Your task to perform on an android device: turn on showing notifications on the lock screen Image 0: 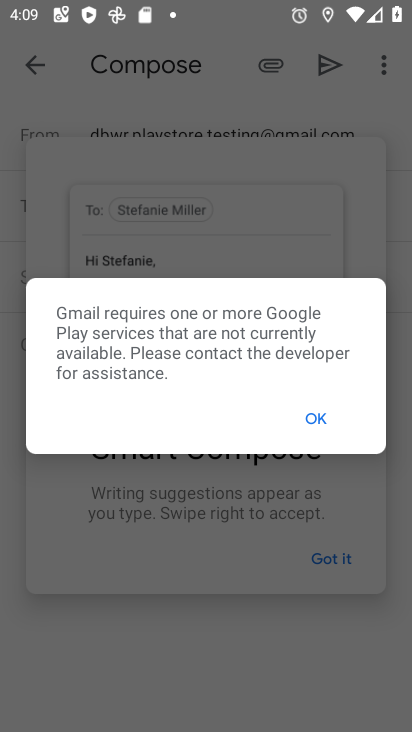
Step 0: press home button
Your task to perform on an android device: turn on showing notifications on the lock screen Image 1: 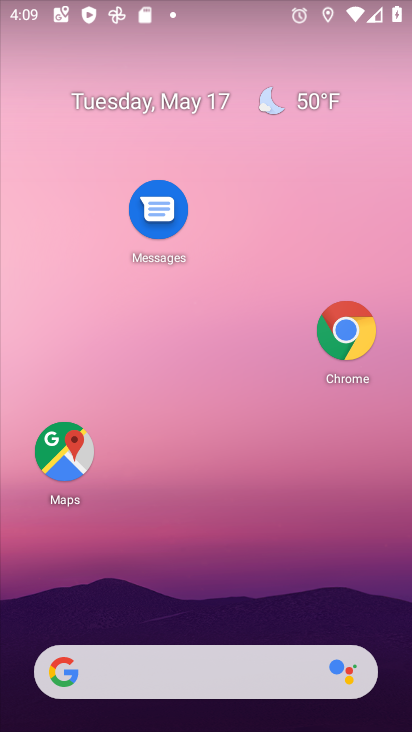
Step 1: drag from (178, 557) to (157, 122)
Your task to perform on an android device: turn on showing notifications on the lock screen Image 2: 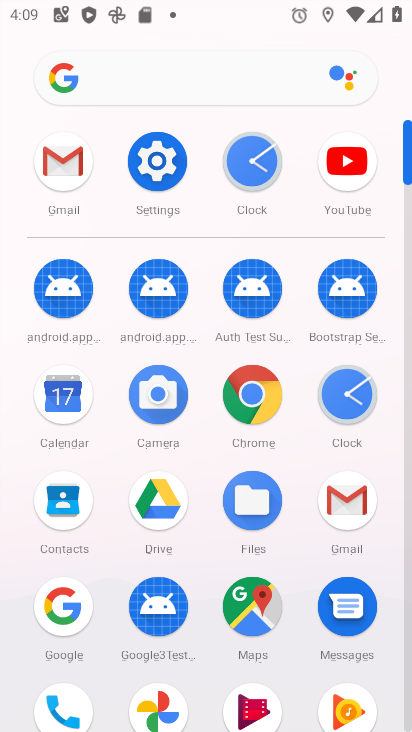
Step 2: click (157, 181)
Your task to perform on an android device: turn on showing notifications on the lock screen Image 3: 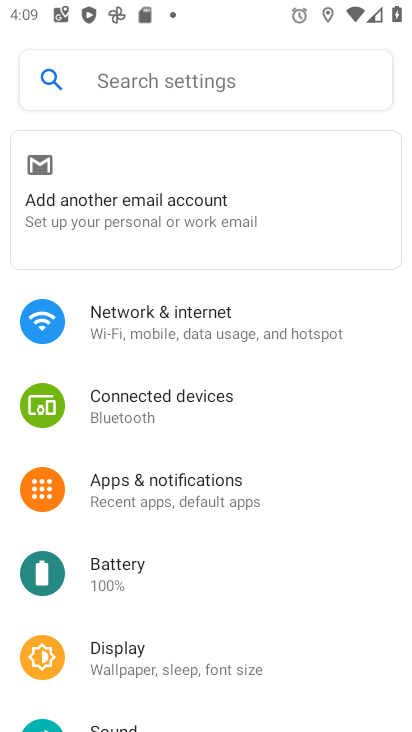
Step 3: click (187, 479)
Your task to perform on an android device: turn on showing notifications on the lock screen Image 4: 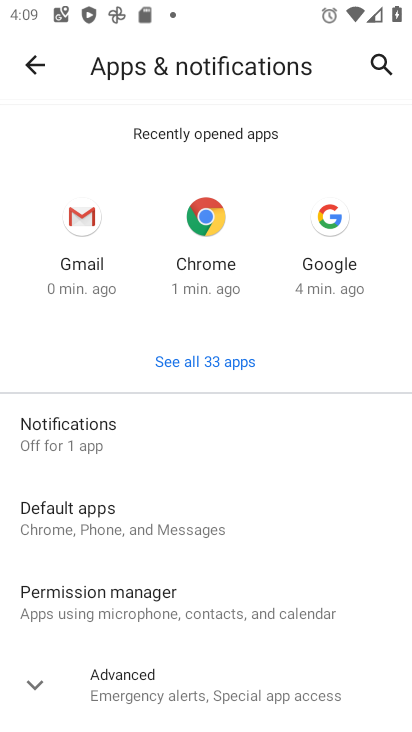
Step 4: drag from (227, 618) to (114, 146)
Your task to perform on an android device: turn on showing notifications on the lock screen Image 5: 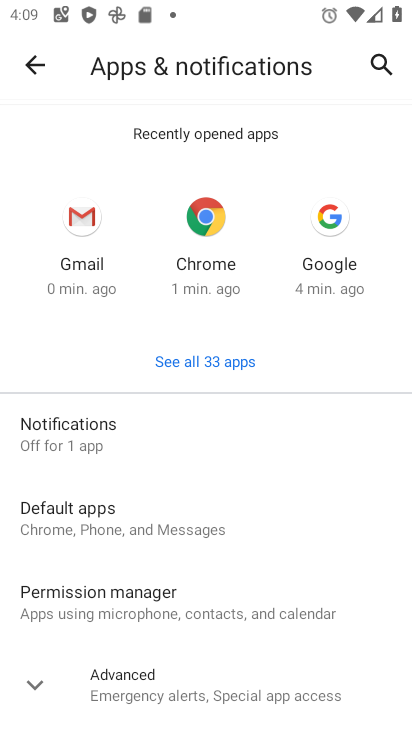
Step 5: drag from (203, 534) to (196, 454)
Your task to perform on an android device: turn on showing notifications on the lock screen Image 6: 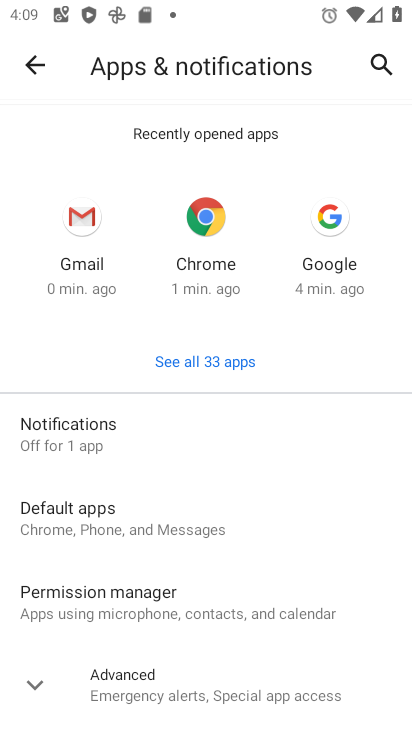
Step 6: click (69, 448)
Your task to perform on an android device: turn on showing notifications on the lock screen Image 7: 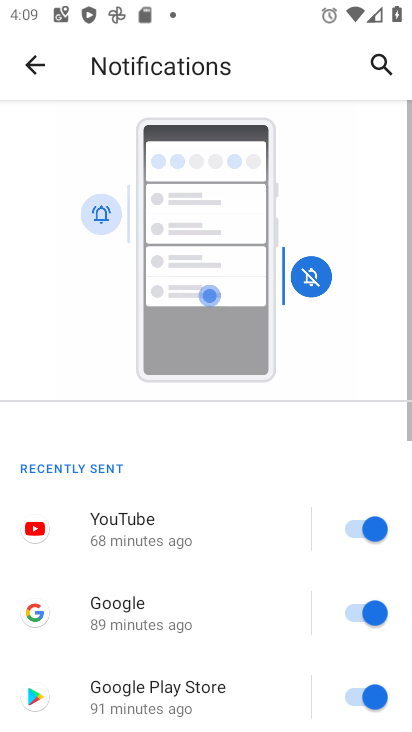
Step 7: drag from (171, 587) to (114, 100)
Your task to perform on an android device: turn on showing notifications on the lock screen Image 8: 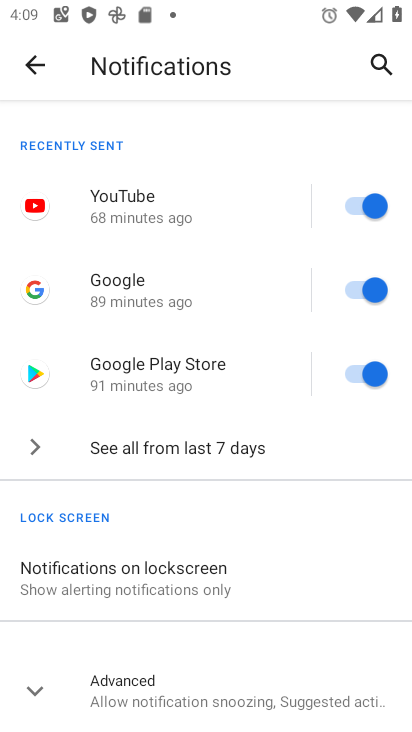
Step 8: drag from (178, 560) to (169, 395)
Your task to perform on an android device: turn on showing notifications on the lock screen Image 9: 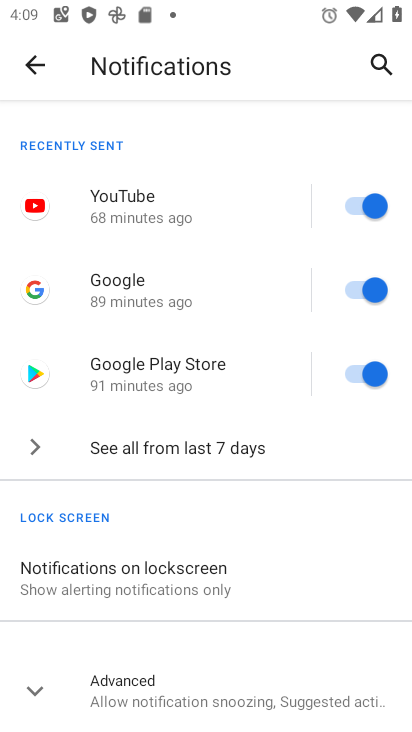
Step 9: click (137, 681)
Your task to perform on an android device: turn on showing notifications on the lock screen Image 10: 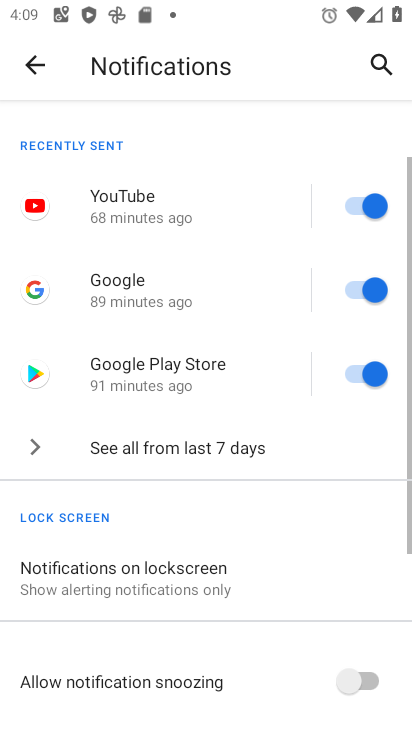
Step 10: drag from (168, 632) to (126, 236)
Your task to perform on an android device: turn on showing notifications on the lock screen Image 11: 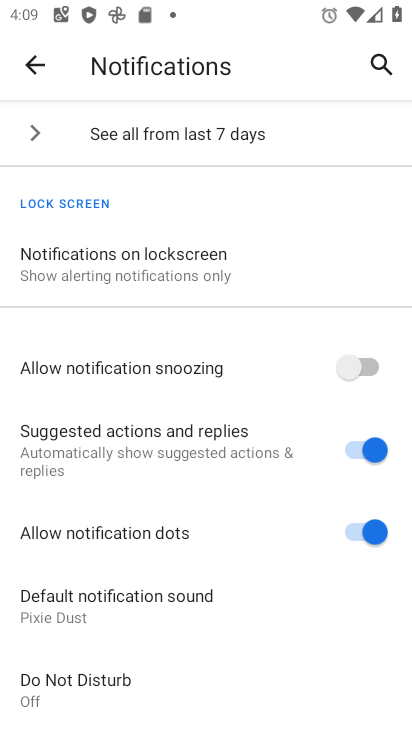
Step 11: click (170, 286)
Your task to perform on an android device: turn on showing notifications on the lock screen Image 12: 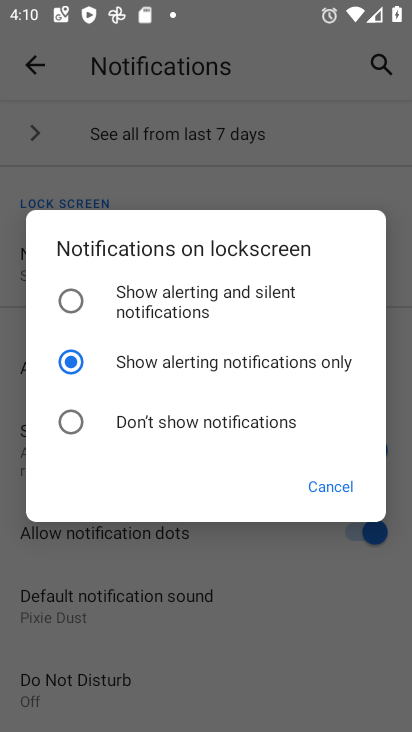
Step 12: task complete